Your task to perform on an android device: Check the weather Image 0: 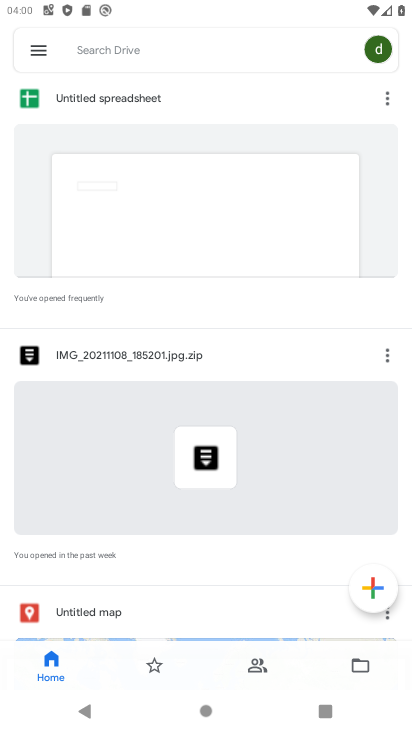
Step 0: press home button
Your task to perform on an android device: Check the weather Image 1: 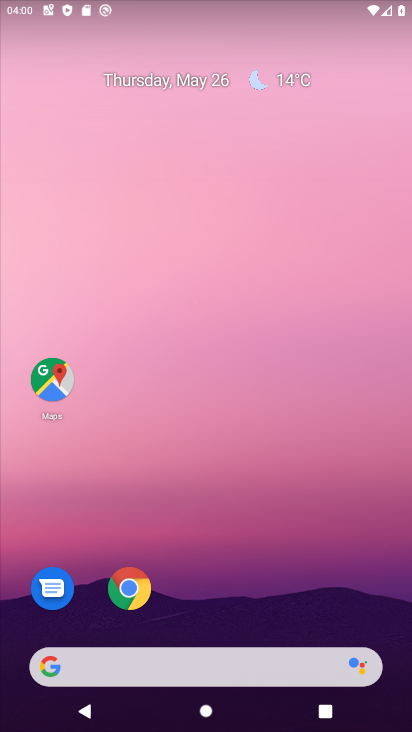
Step 1: click (170, 660)
Your task to perform on an android device: Check the weather Image 2: 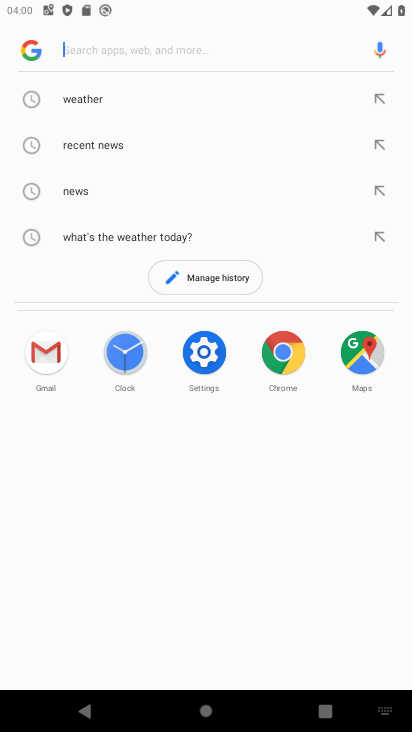
Step 2: type "whether"
Your task to perform on an android device: Check the weather Image 3: 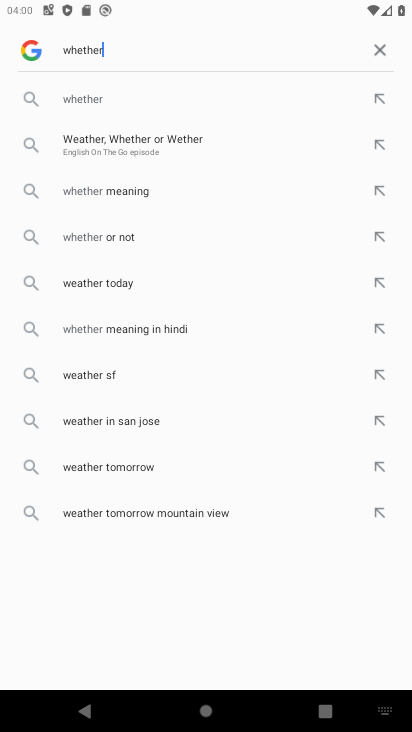
Step 3: click (128, 279)
Your task to perform on an android device: Check the weather Image 4: 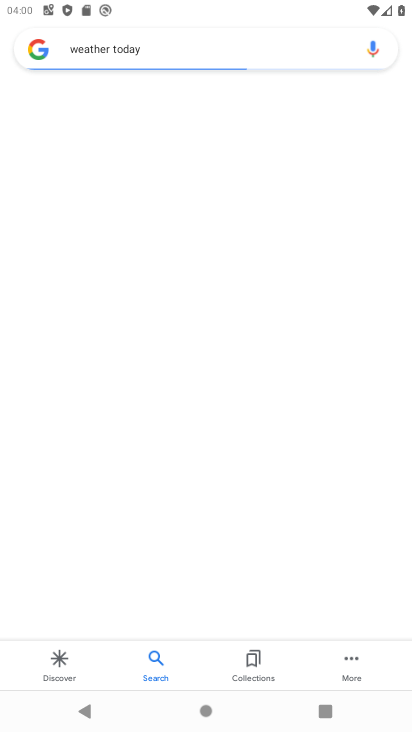
Step 4: task complete